Your task to perform on an android device: toggle improve location accuracy Image 0: 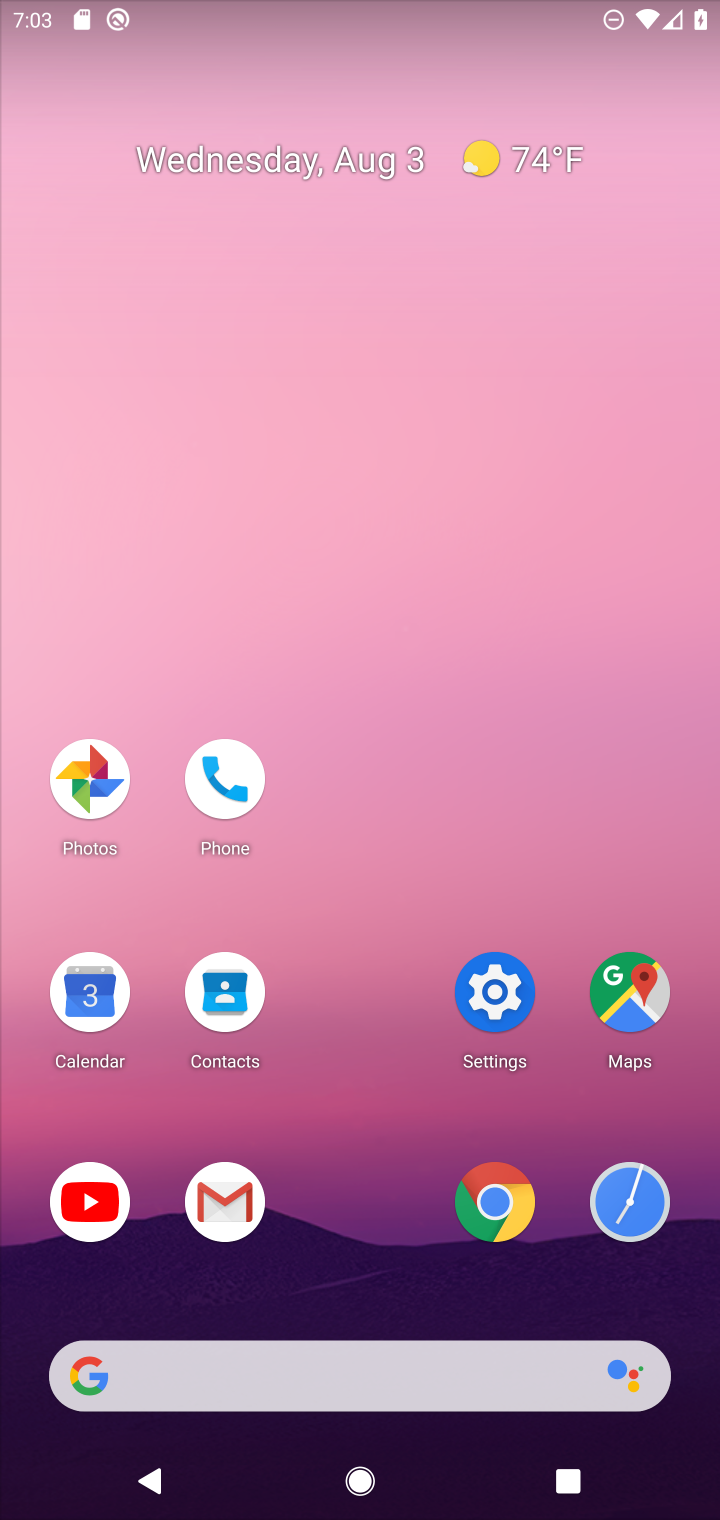
Step 0: click (484, 993)
Your task to perform on an android device: toggle improve location accuracy Image 1: 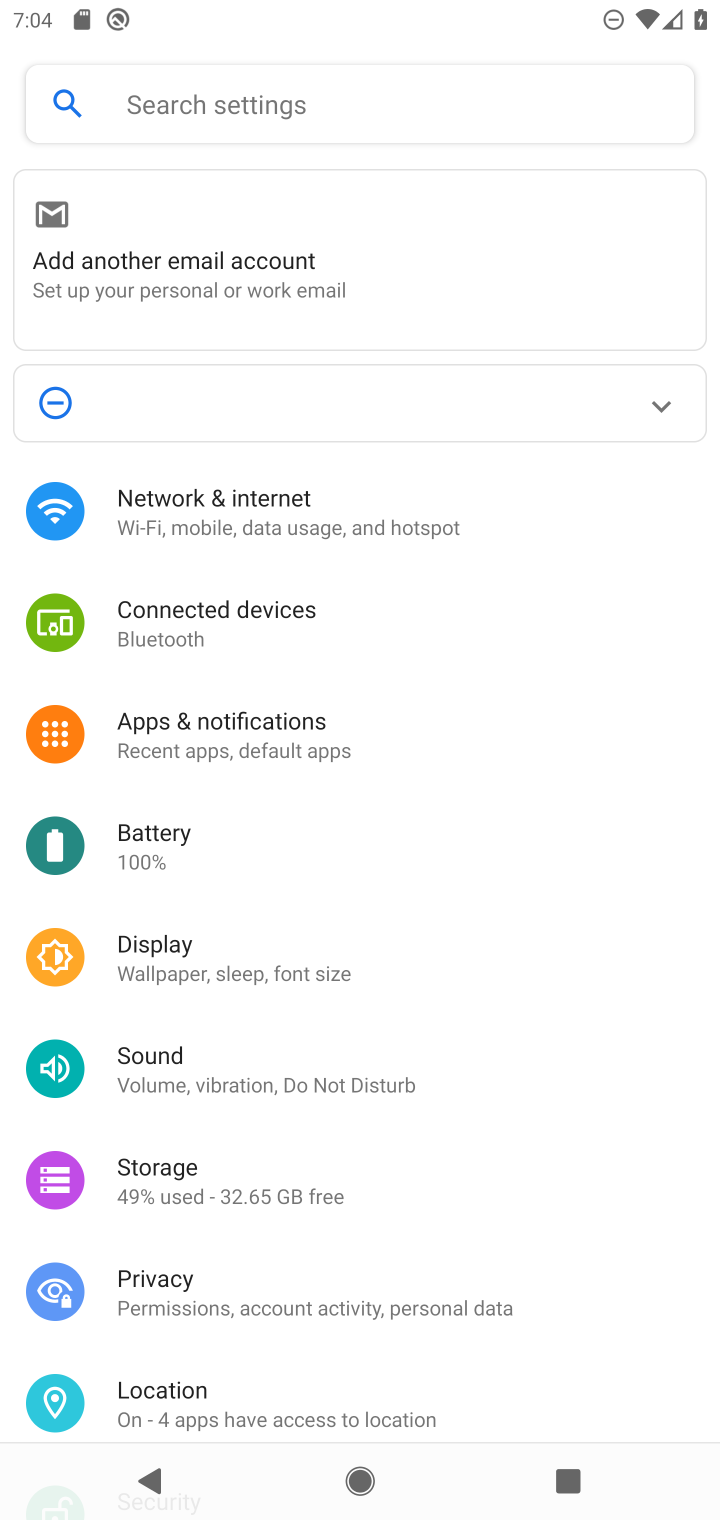
Step 1: click (166, 1390)
Your task to perform on an android device: toggle improve location accuracy Image 2: 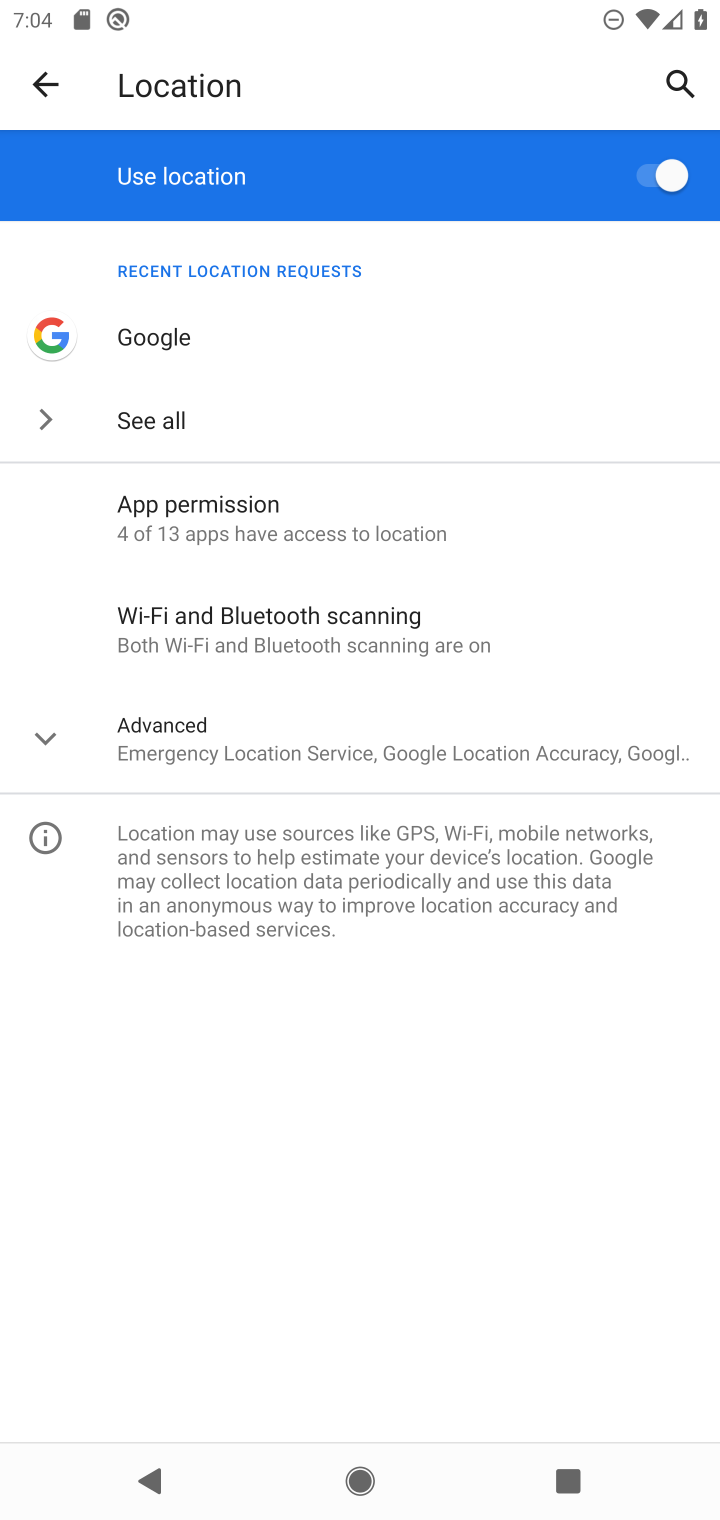
Step 2: click (45, 730)
Your task to perform on an android device: toggle improve location accuracy Image 3: 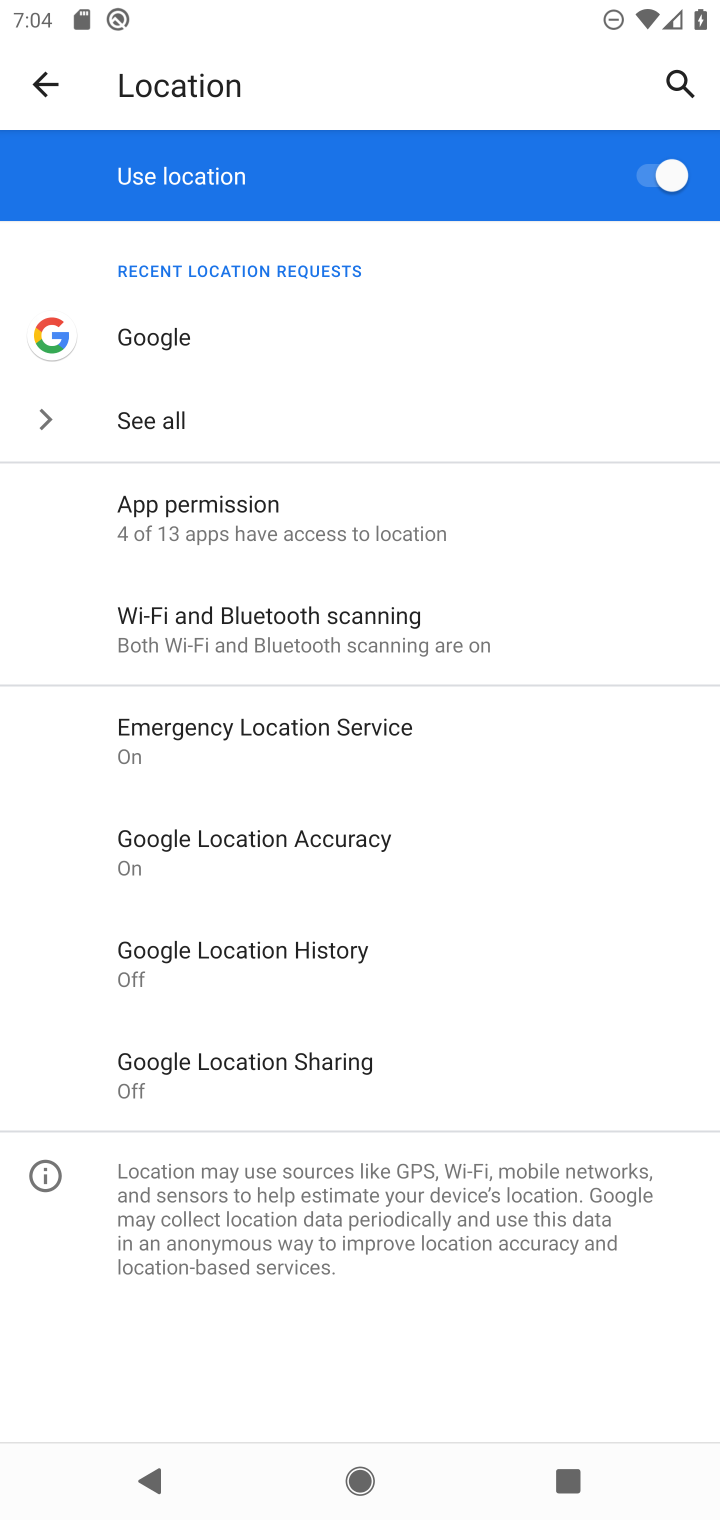
Step 3: click (289, 834)
Your task to perform on an android device: toggle improve location accuracy Image 4: 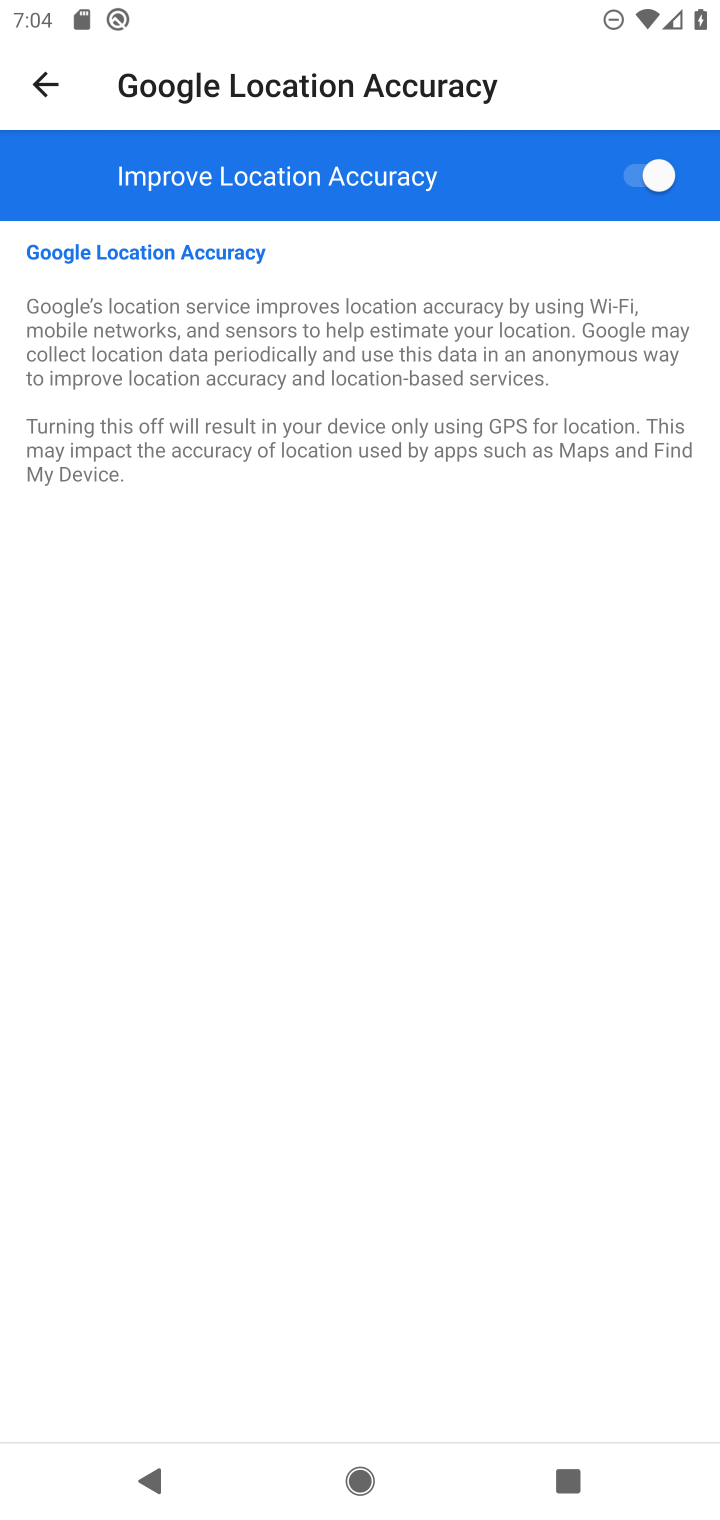
Step 4: click (654, 179)
Your task to perform on an android device: toggle improve location accuracy Image 5: 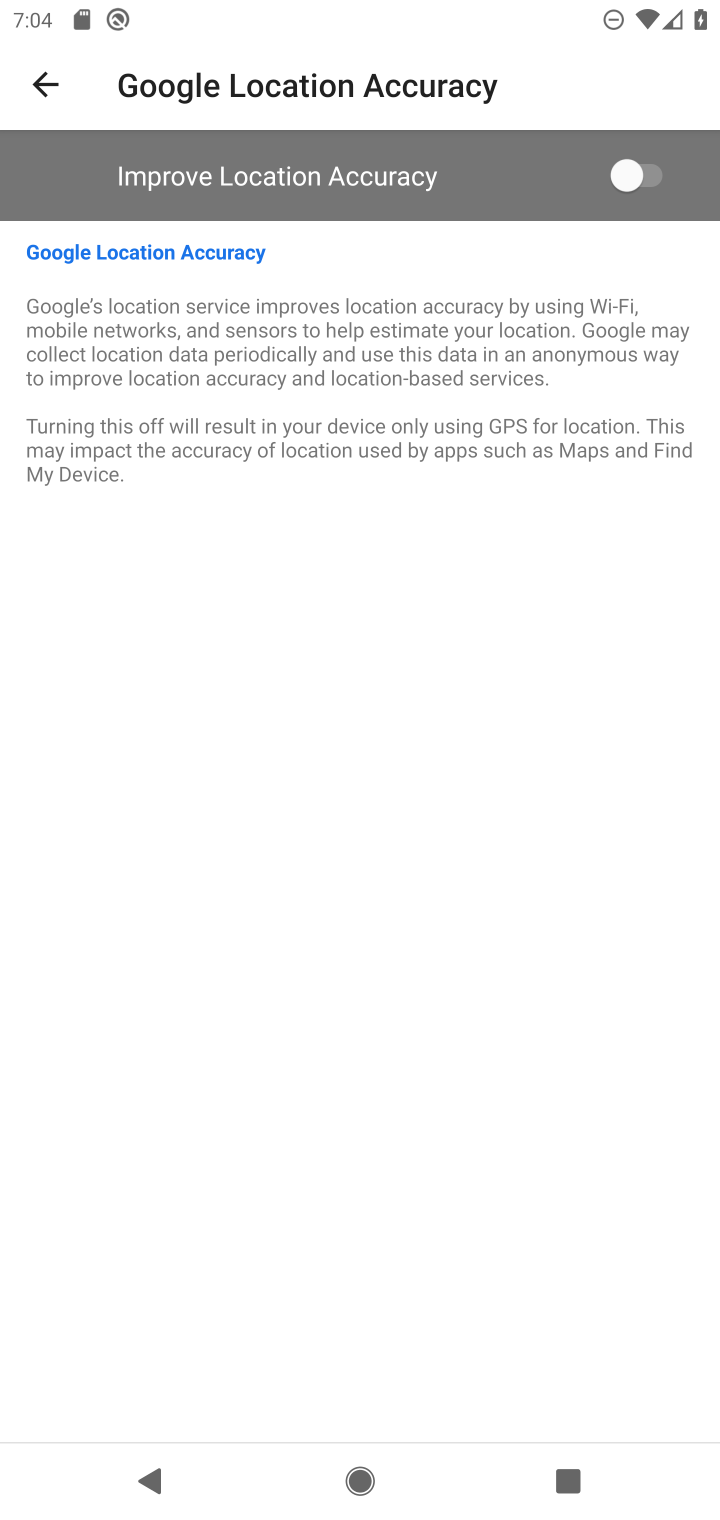
Step 5: task complete